Your task to perform on an android device: turn on the 12-hour format for clock Image 0: 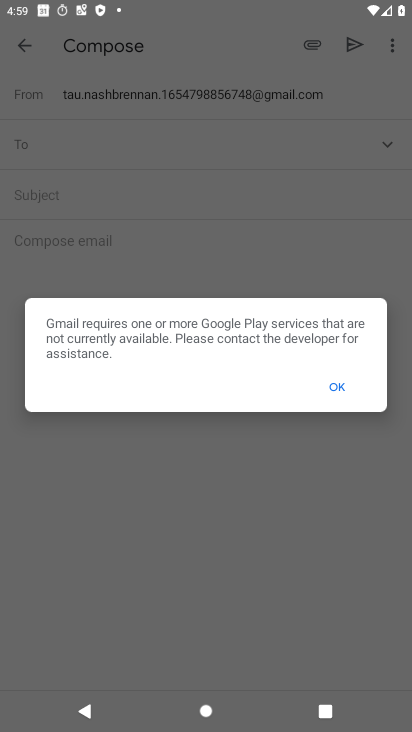
Step 0: press home button
Your task to perform on an android device: turn on the 12-hour format for clock Image 1: 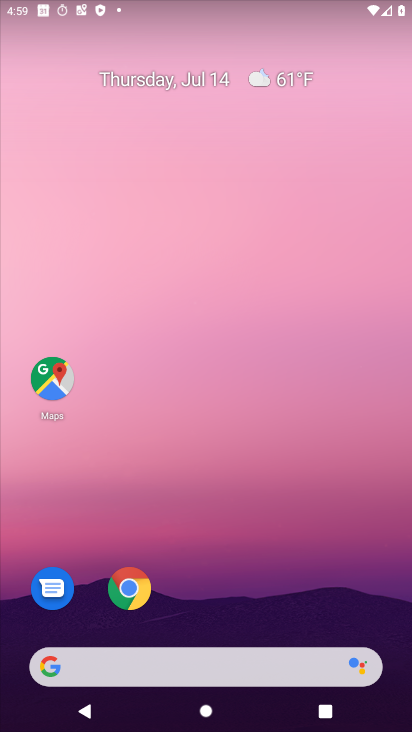
Step 1: drag from (186, 672) to (390, 100)
Your task to perform on an android device: turn on the 12-hour format for clock Image 2: 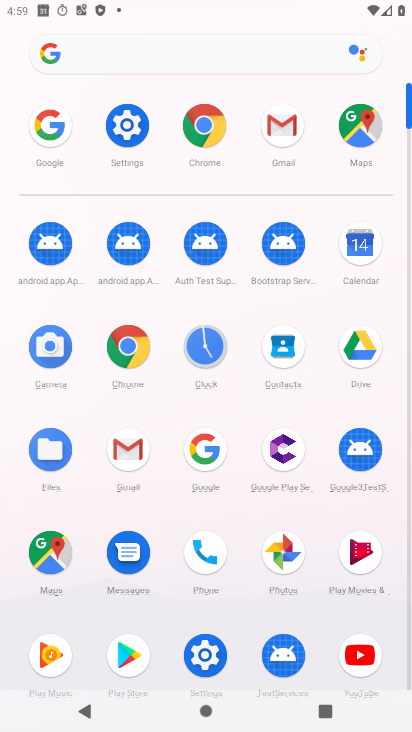
Step 2: click (206, 344)
Your task to perform on an android device: turn on the 12-hour format for clock Image 3: 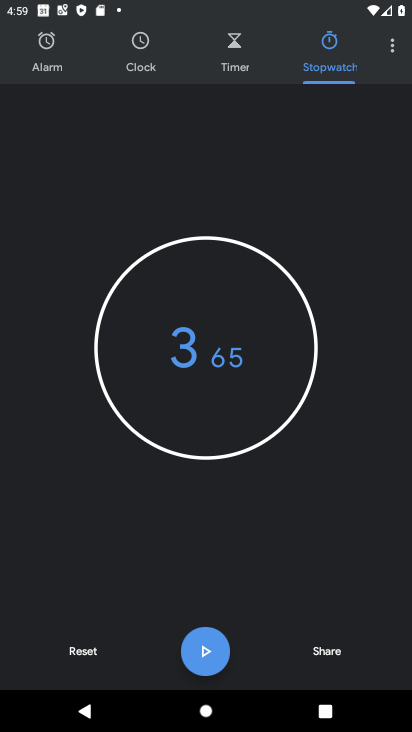
Step 3: click (393, 49)
Your task to perform on an android device: turn on the 12-hour format for clock Image 4: 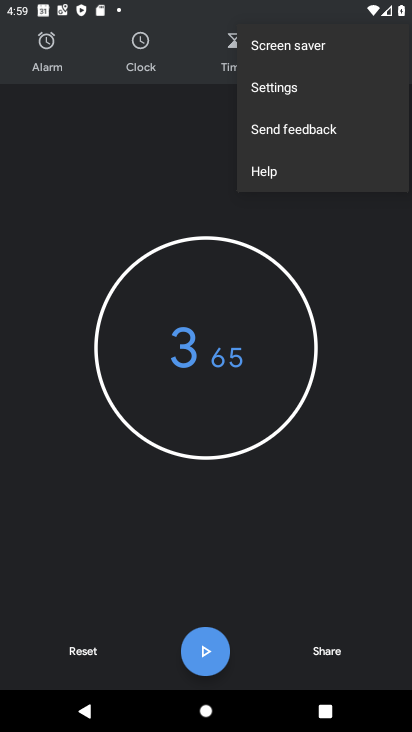
Step 4: click (287, 86)
Your task to perform on an android device: turn on the 12-hour format for clock Image 5: 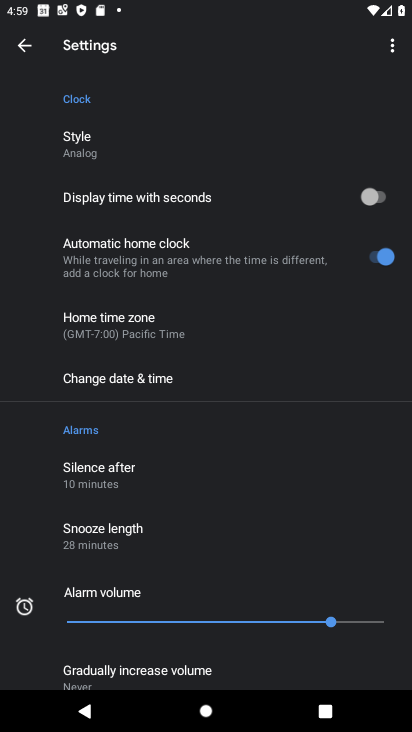
Step 5: click (116, 380)
Your task to perform on an android device: turn on the 12-hour format for clock Image 6: 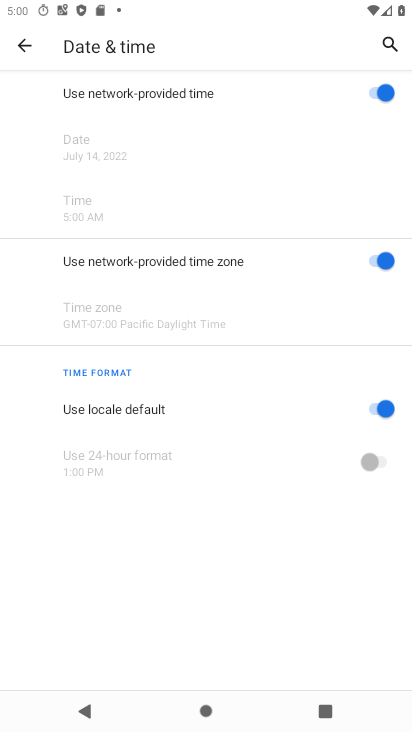
Step 6: task complete